Your task to perform on an android device: Open Amazon Image 0: 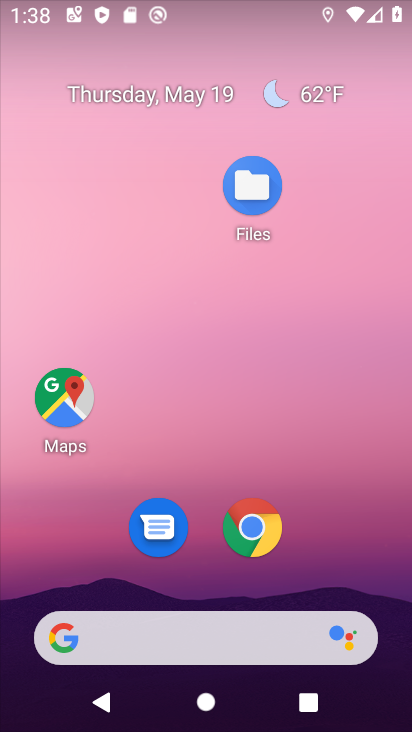
Step 0: press home button
Your task to perform on an android device: Open Amazon Image 1: 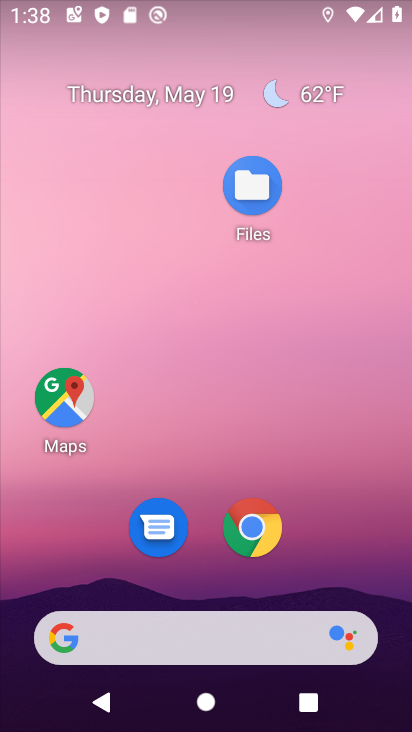
Step 1: drag from (389, 464) to (355, 67)
Your task to perform on an android device: Open Amazon Image 2: 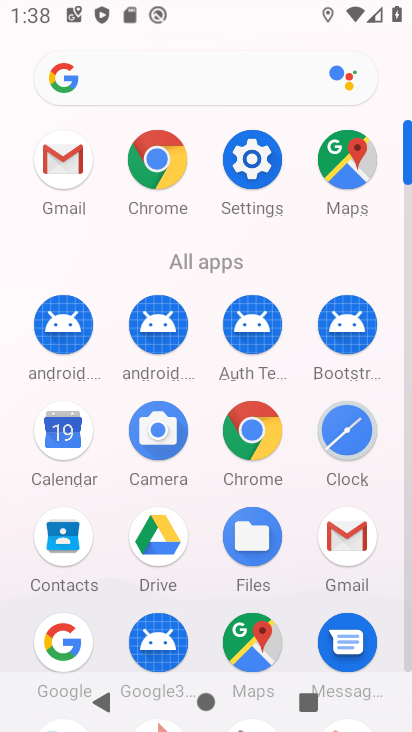
Step 2: click (260, 430)
Your task to perform on an android device: Open Amazon Image 3: 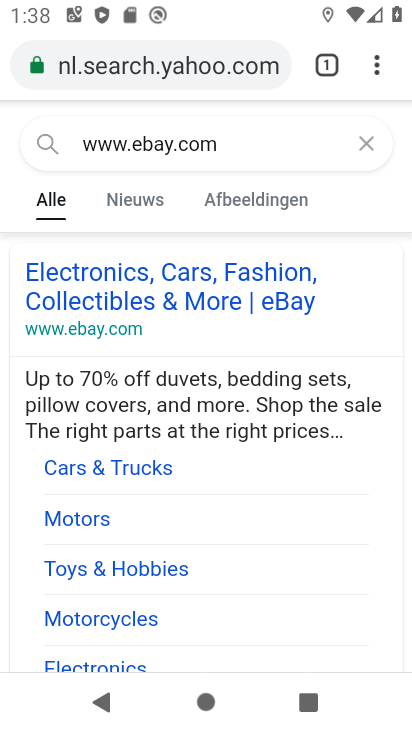
Step 3: drag from (281, 622) to (321, 231)
Your task to perform on an android device: Open Amazon Image 4: 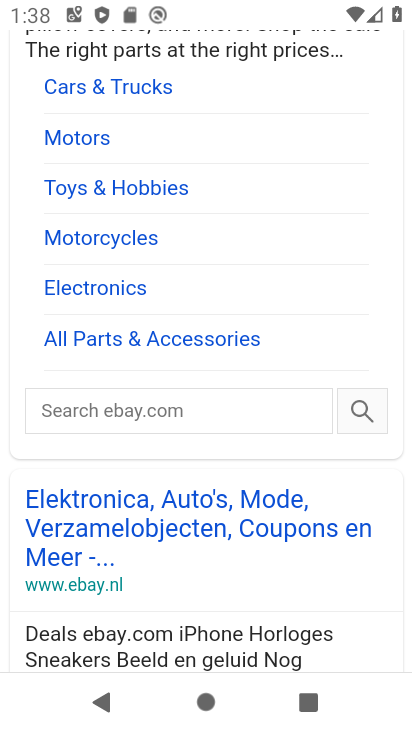
Step 4: drag from (203, 582) to (252, 219)
Your task to perform on an android device: Open Amazon Image 5: 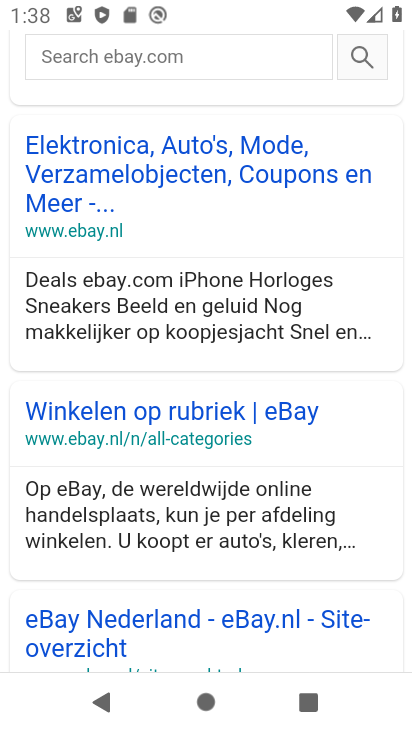
Step 5: drag from (251, 119) to (248, 517)
Your task to perform on an android device: Open Amazon Image 6: 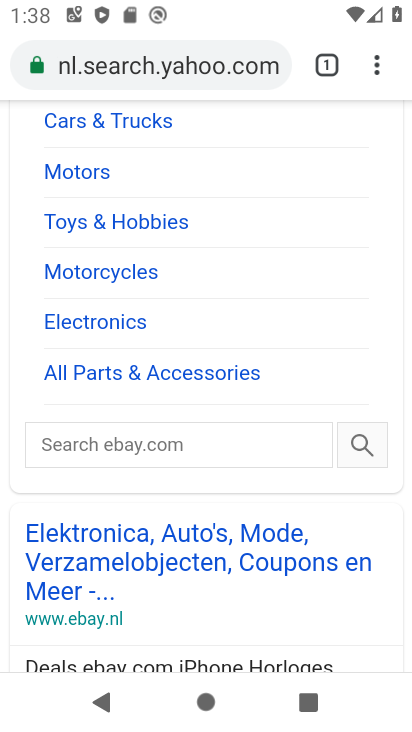
Step 6: click (189, 72)
Your task to perform on an android device: Open Amazon Image 7: 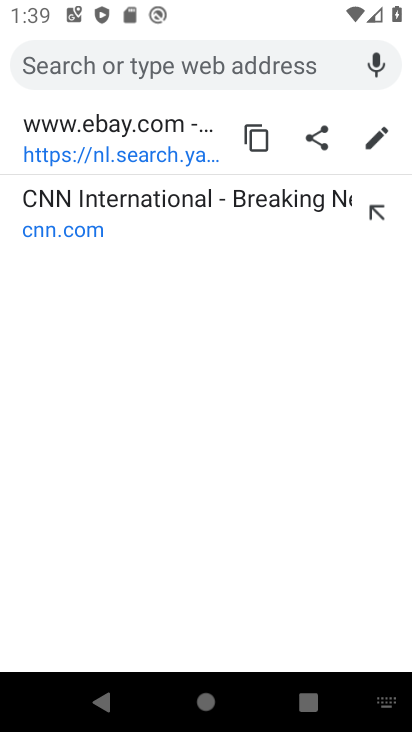
Step 7: type "amazon"
Your task to perform on an android device: Open Amazon Image 8: 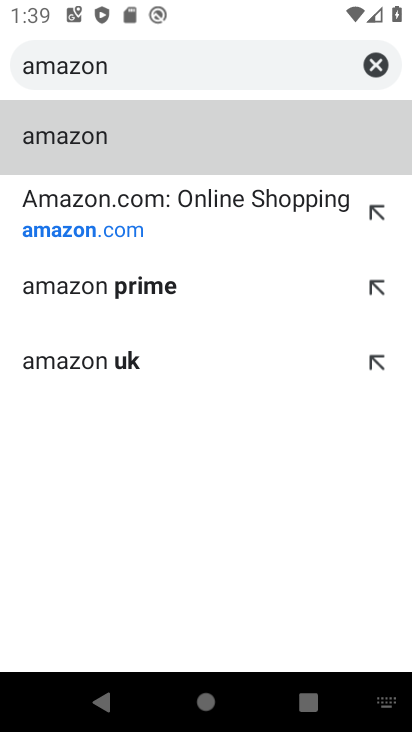
Step 8: click (59, 134)
Your task to perform on an android device: Open Amazon Image 9: 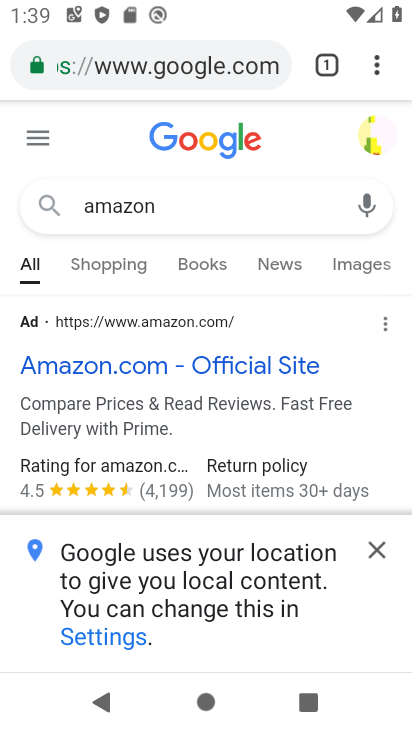
Step 9: click (142, 369)
Your task to perform on an android device: Open Amazon Image 10: 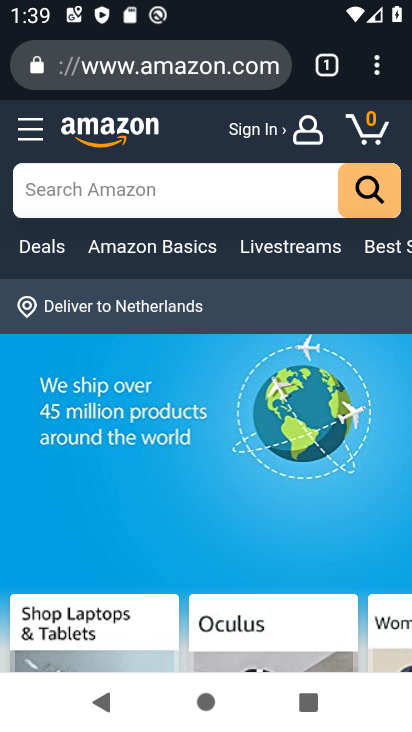
Step 10: task complete